Your task to perform on an android device: Open the web browser Image 0: 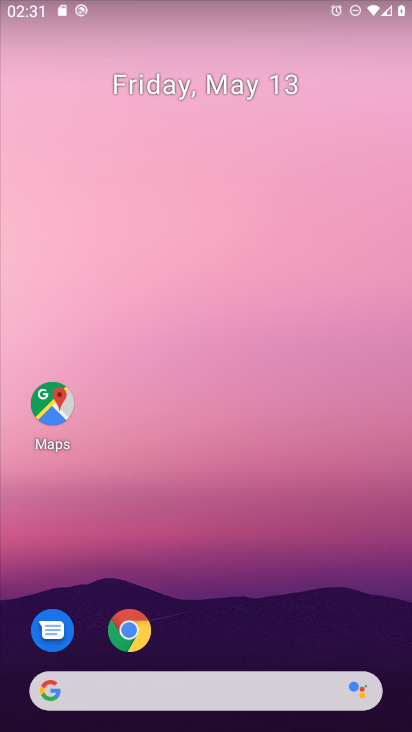
Step 0: drag from (267, 712) to (335, 194)
Your task to perform on an android device: Open the web browser Image 1: 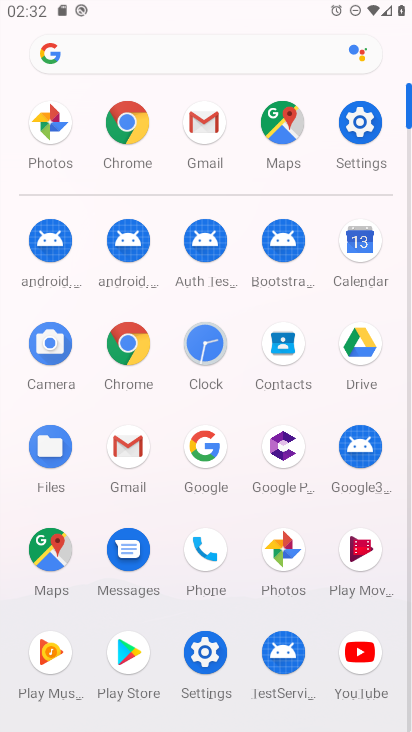
Step 1: click (130, 353)
Your task to perform on an android device: Open the web browser Image 2: 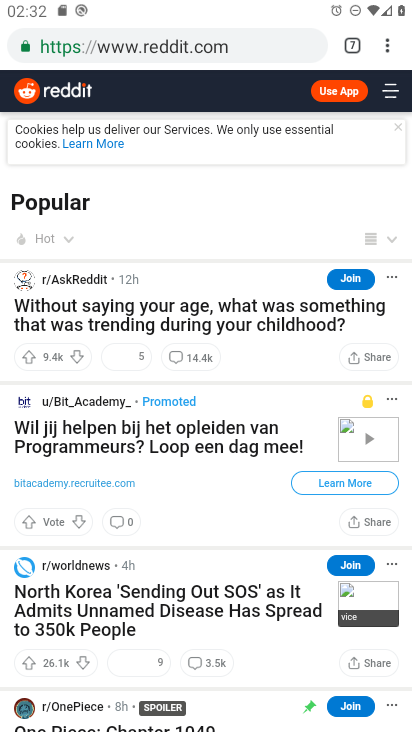
Step 2: click (237, 54)
Your task to perform on an android device: Open the web browser Image 3: 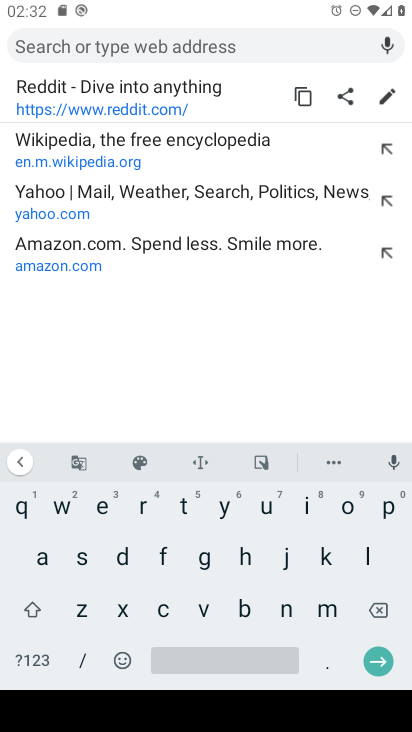
Step 3: task complete